Your task to perform on an android device: change notification settings in the gmail app Image 0: 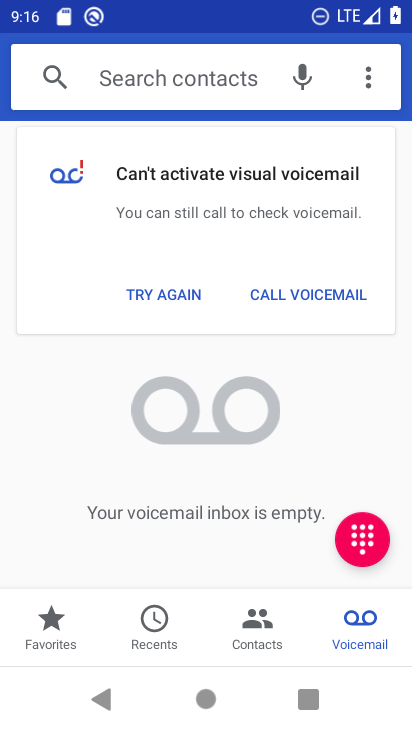
Step 0: press home button
Your task to perform on an android device: change notification settings in the gmail app Image 1: 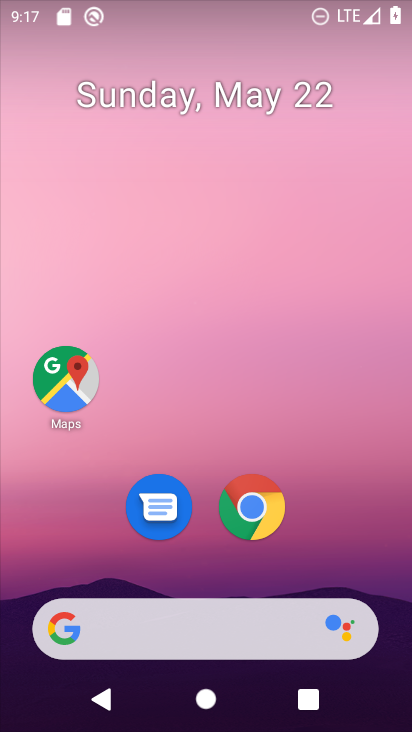
Step 1: drag from (249, 707) to (212, 20)
Your task to perform on an android device: change notification settings in the gmail app Image 2: 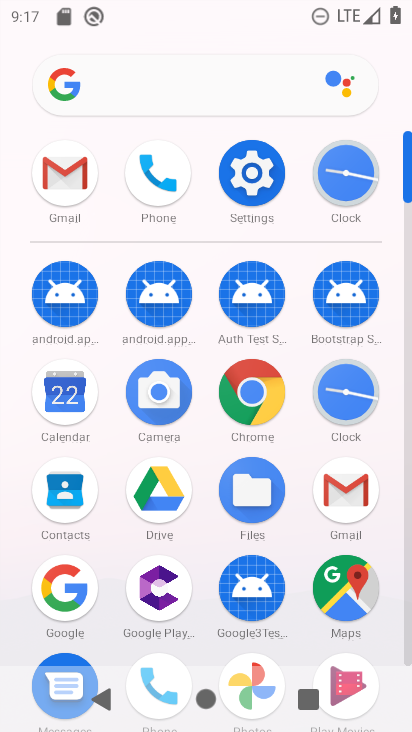
Step 2: click (342, 502)
Your task to perform on an android device: change notification settings in the gmail app Image 3: 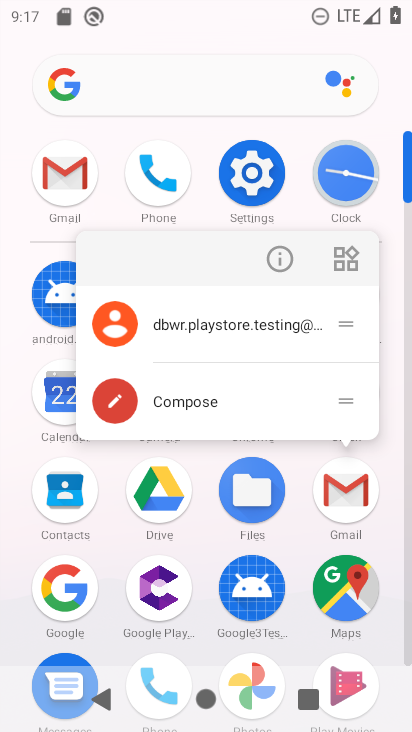
Step 3: click (278, 254)
Your task to perform on an android device: change notification settings in the gmail app Image 4: 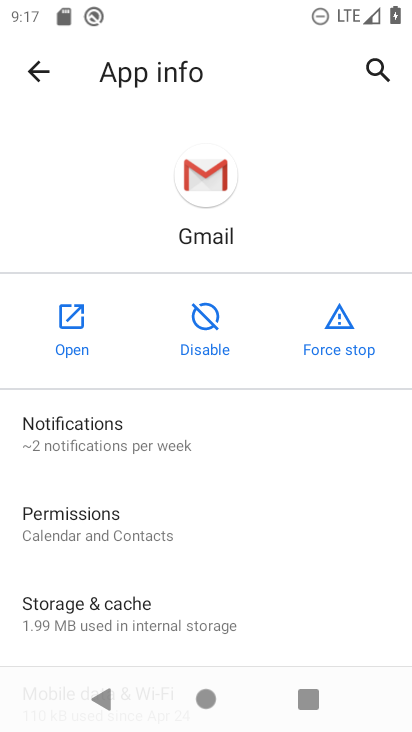
Step 4: click (175, 428)
Your task to perform on an android device: change notification settings in the gmail app Image 5: 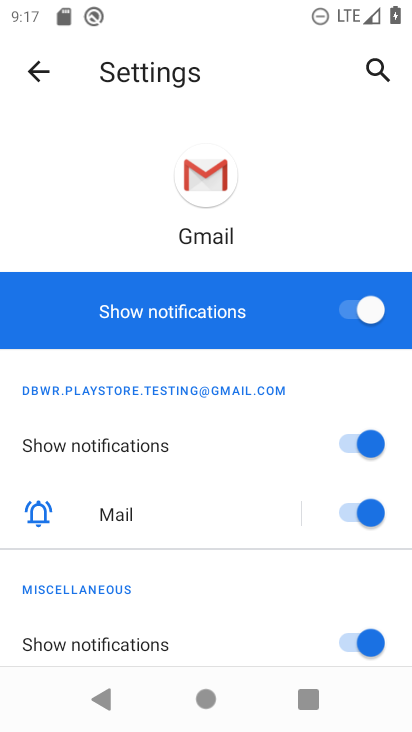
Step 5: click (376, 306)
Your task to perform on an android device: change notification settings in the gmail app Image 6: 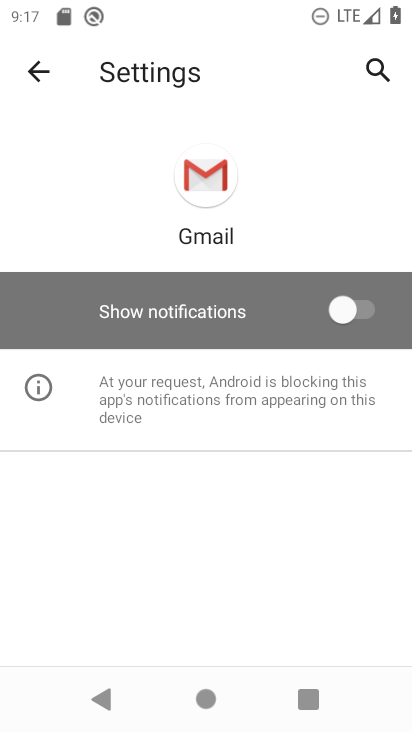
Step 6: task complete